Your task to perform on an android device: add a contact Image 0: 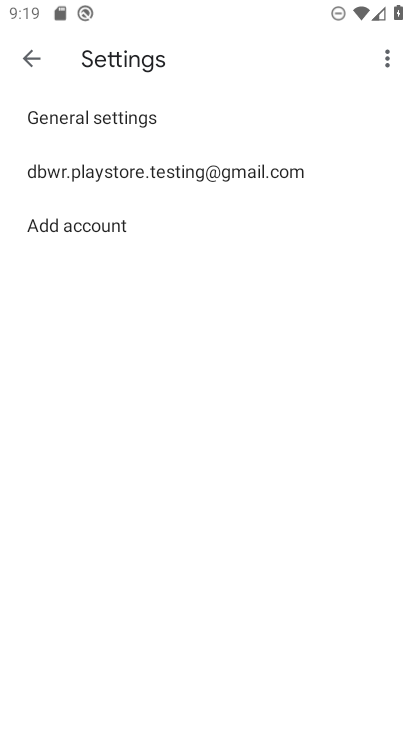
Step 0: press home button
Your task to perform on an android device: add a contact Image 1: 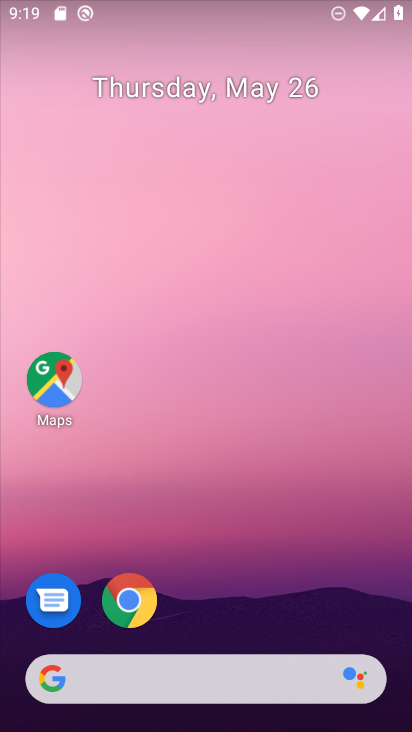
Step 1: drag from (172, 680) to (236, 354)
Your task to perform on an android device: add a contact Image 2: 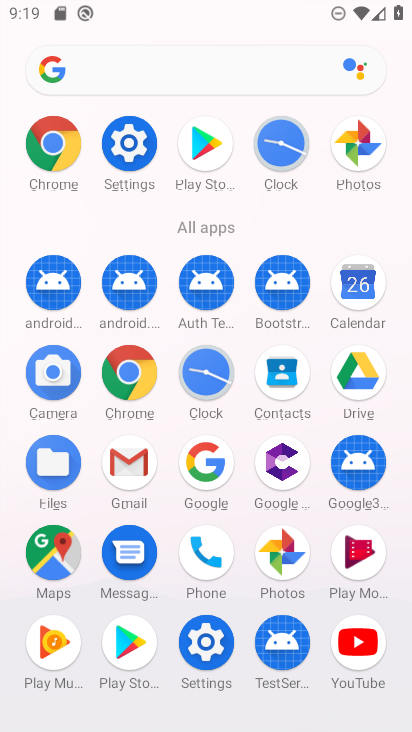
Step 2: click (210, 564)
Your task to perform on an android device: add a contact Image 3: 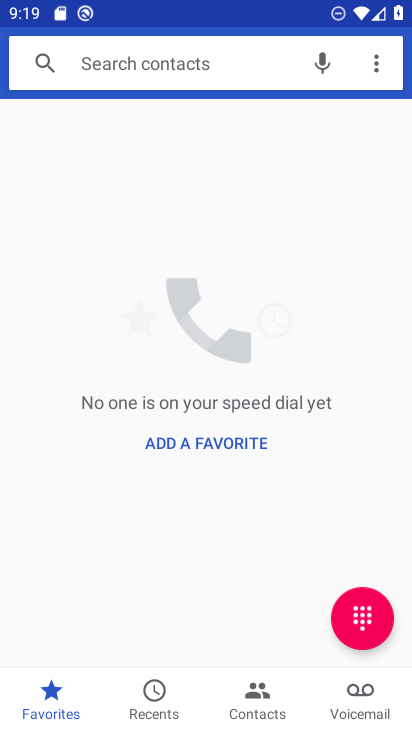
Step 3: click (366, 620)
Your task to perform on an android device: add a contact Image 4: 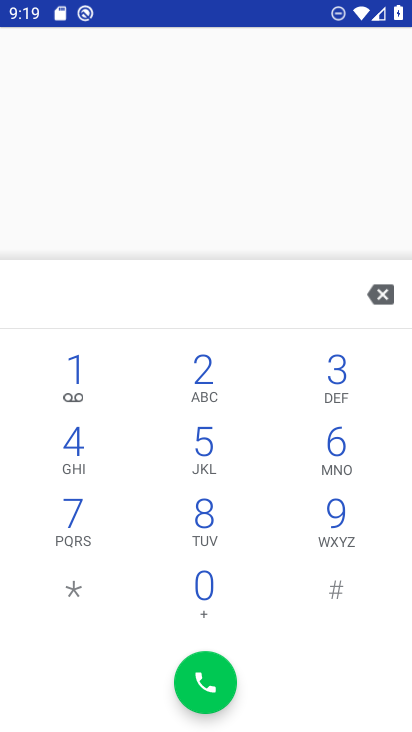
Step 4: click (80, 517)
Your task to perform on an android device: add a contact Image 5: 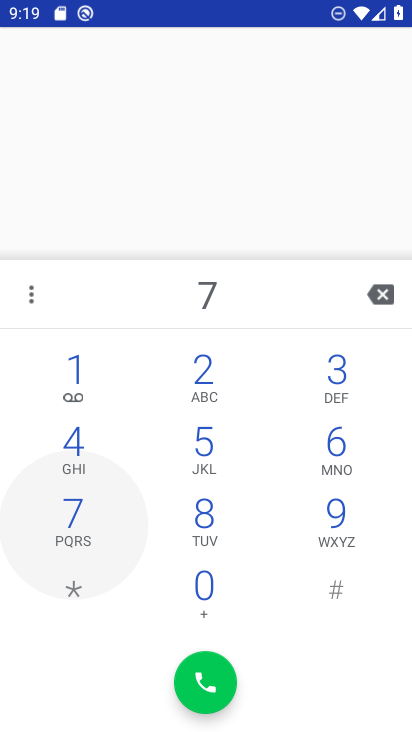
Step 5: click (208, 522)
Your task to perform on an android device: add a contact Image 6: 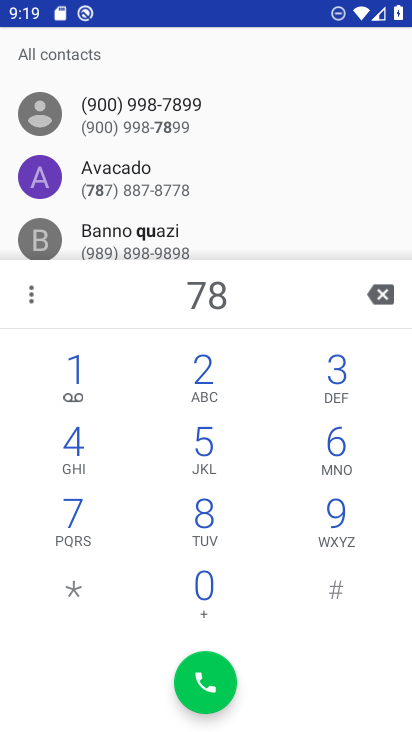
Step 6: click (210, 584)
Your task to perform on an android device: add a contact Image 7: 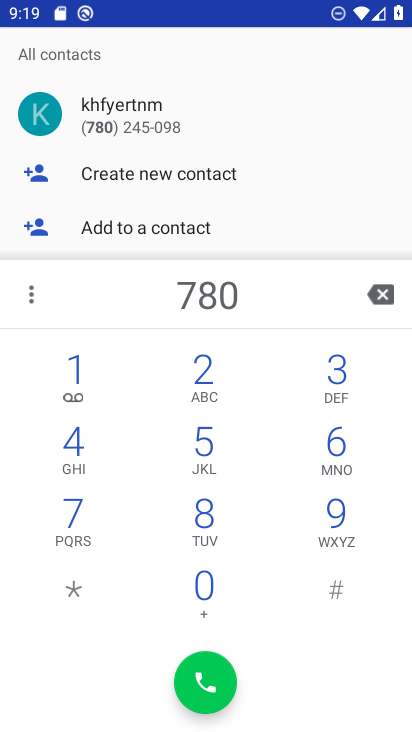
Step 7: click (204, 451)
Your task to perform on an android device: add a contact Image 8: 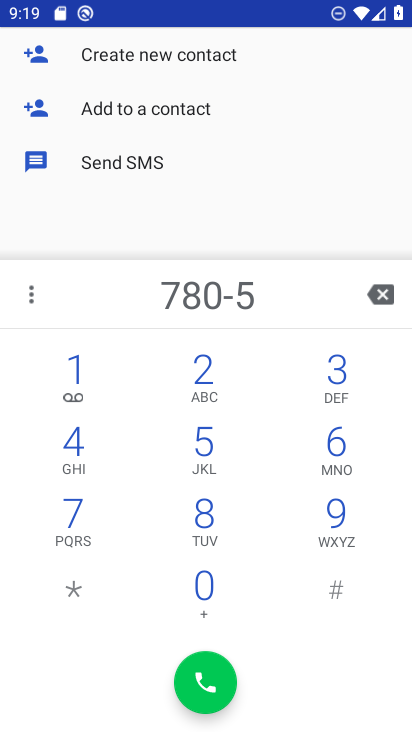
Step 8: click (337, 510)
Your task to perform on an android device: add a contact Image 9: 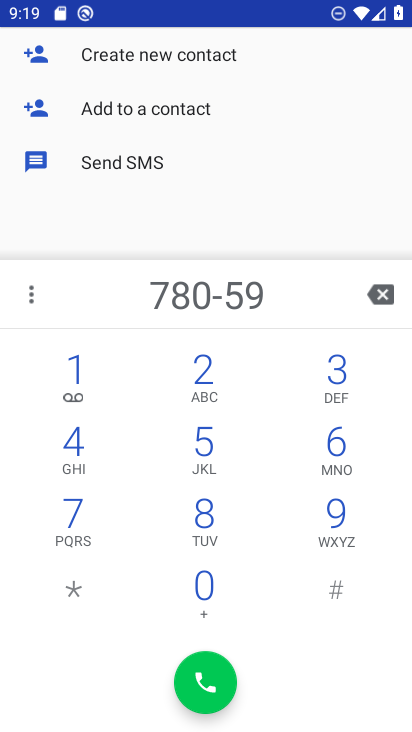
Step 9: click (190, 519)
Your task to perform on an android device: add a contact Image 10: 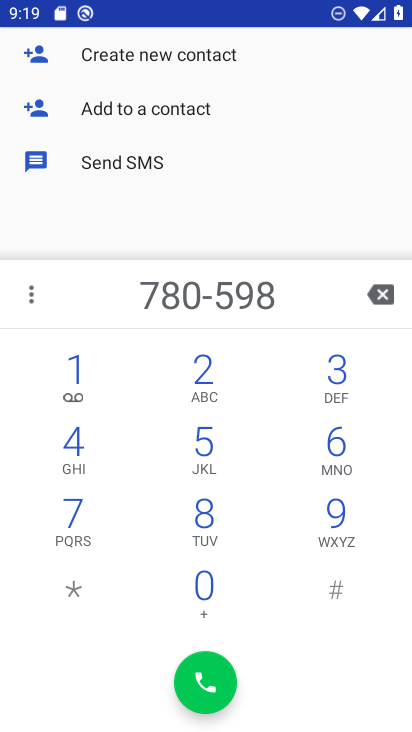
Step 10: click (211, 590)
Your task to perform on an android device: add a contact Image 11: 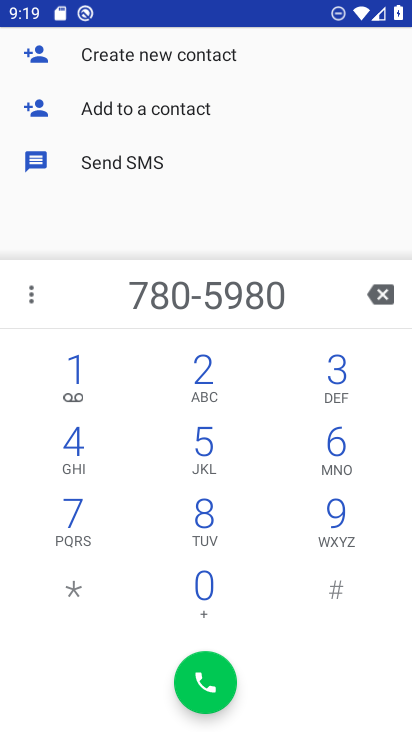
Step 11: click (77, 515)
Your task to perform on an android device: add a contact Image 12: 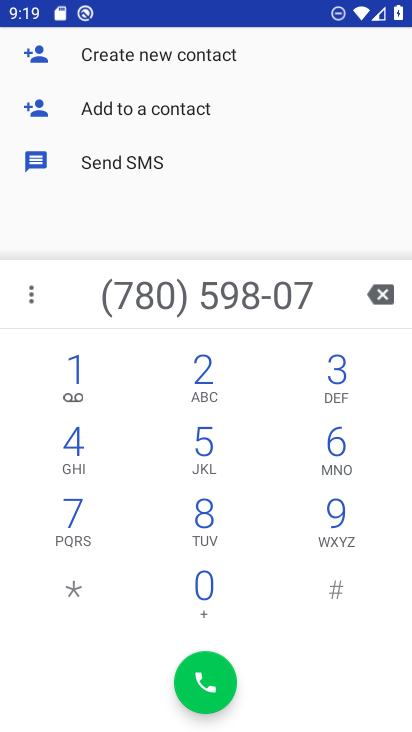
Step 12: click (197, 591)
Your task to perform on an android device: add a contact Image 13: 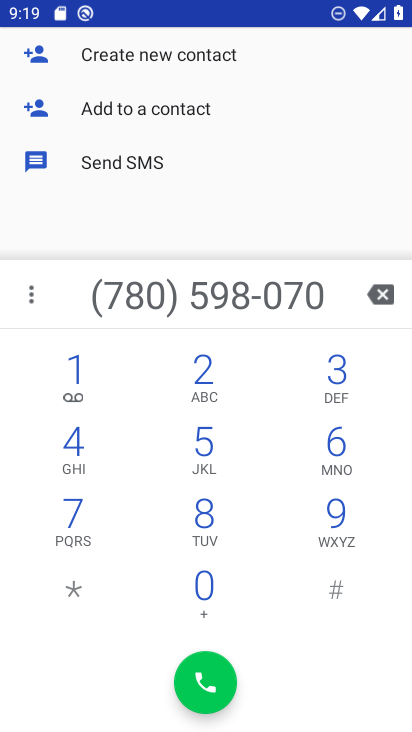
Step 13: click (195, 379)
Your task to perform on an android device: add a contact Image 14: 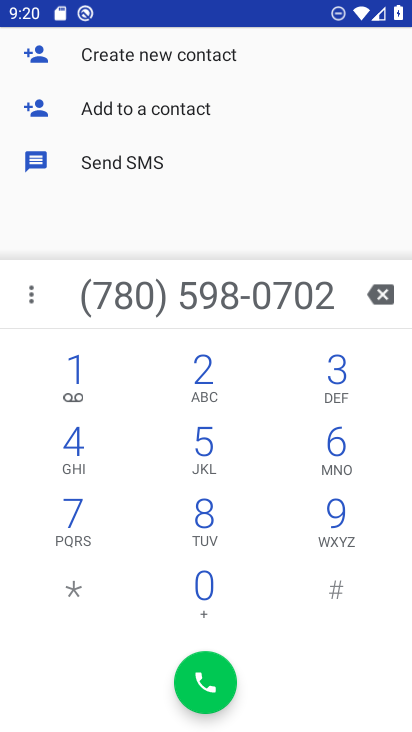
Step 14: click (138, 56)
Your task to perform on an android device: add a contact Image 15: 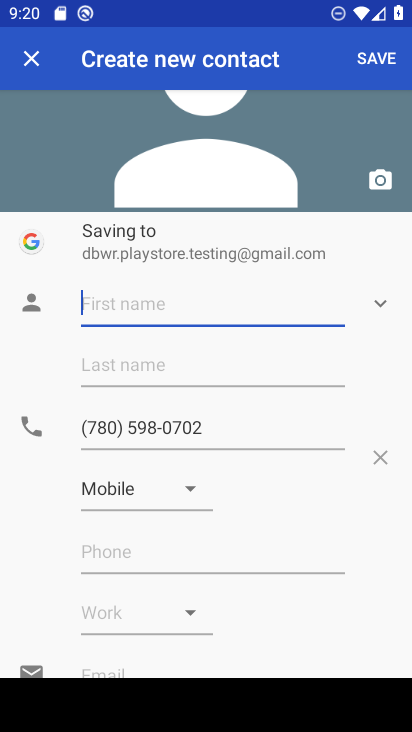
Step 15: type "piku"
Your task to perform on an android device: add a contact Image 16: 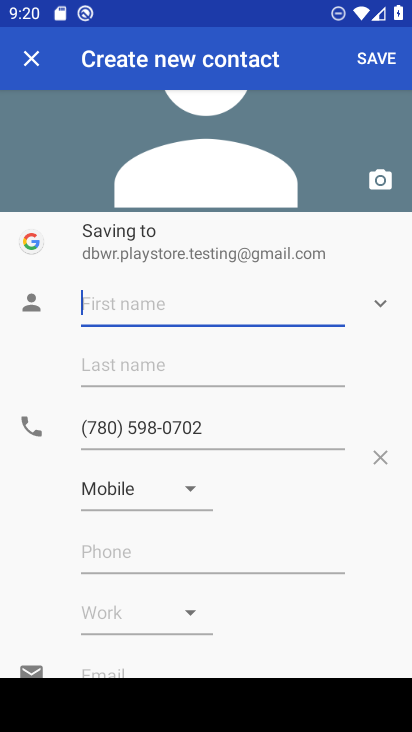
Step 16: click (116, 361)
Your task to perform on an android device: add a contact Image 17: 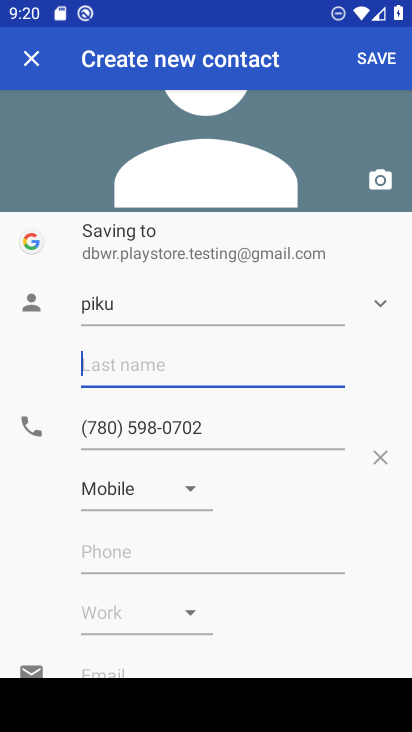
Step 17: type "sehjwal"
Your task to perform on an android device: add a contact Image 18: 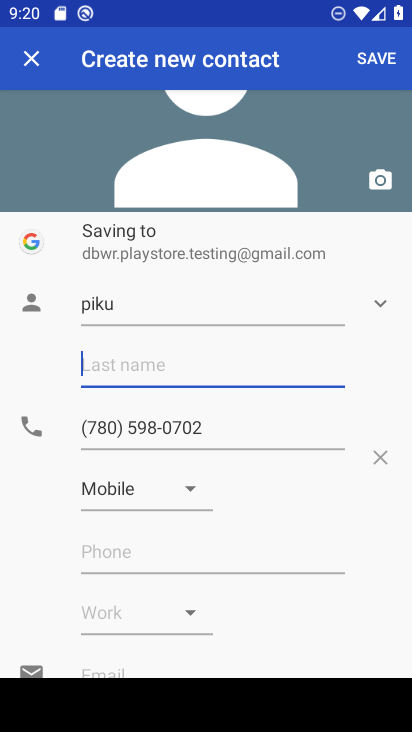
Step 18: click (394, 57)
Your task to perform on an android device: add a contact Image 19: 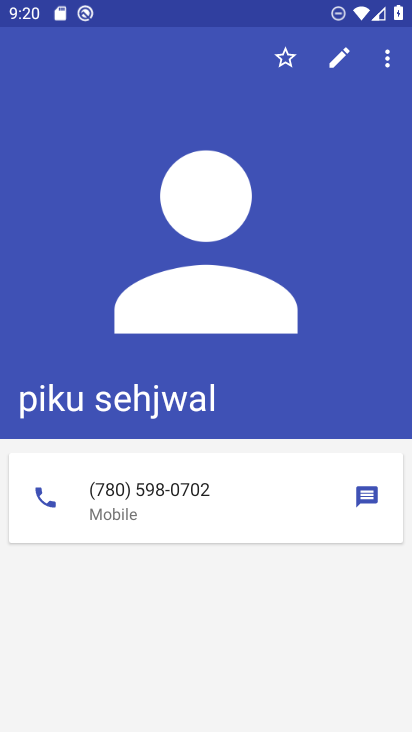
Step 19: task complete